Your task to perform on an android device: Search for Italian restaurants on Maps Image 0: 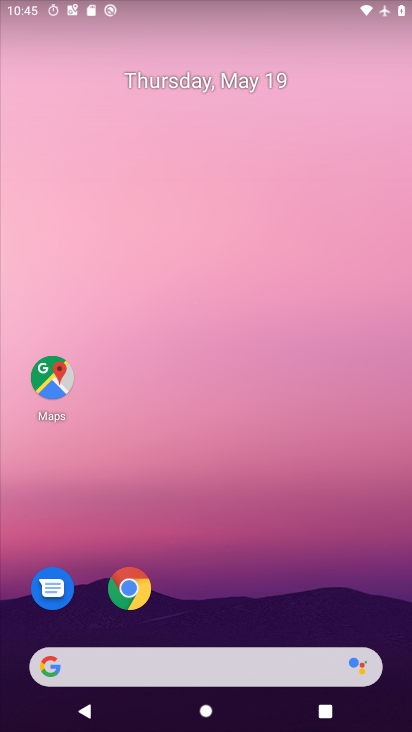
Step 0: press home button
Your task to perform on an android device: Search for Italian restaurants on Maps Image 1: 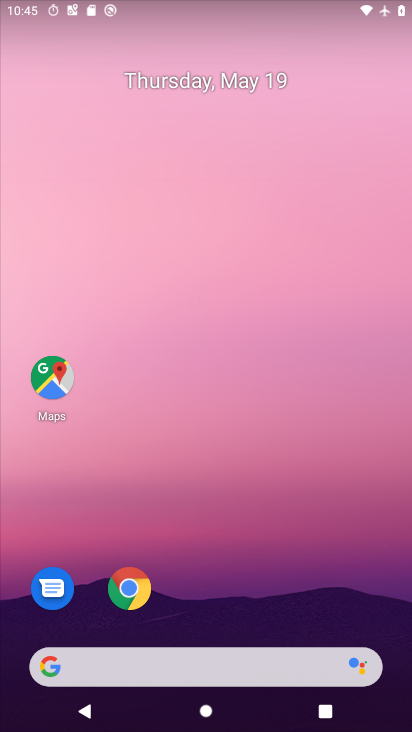
Step 1: click (55, 382)
Your task to perform on an android device: Search for Italian restaurants on Maps Image 2: 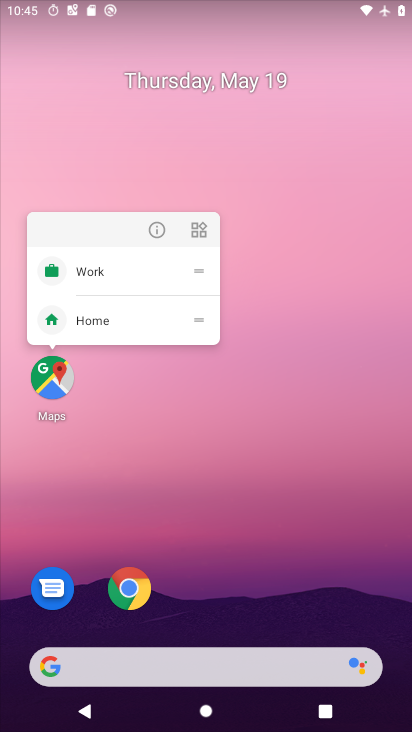
Step 2: click (50, 387)
Your task to perform on an android device: Search for Italian restaurants on Maps Image 3: 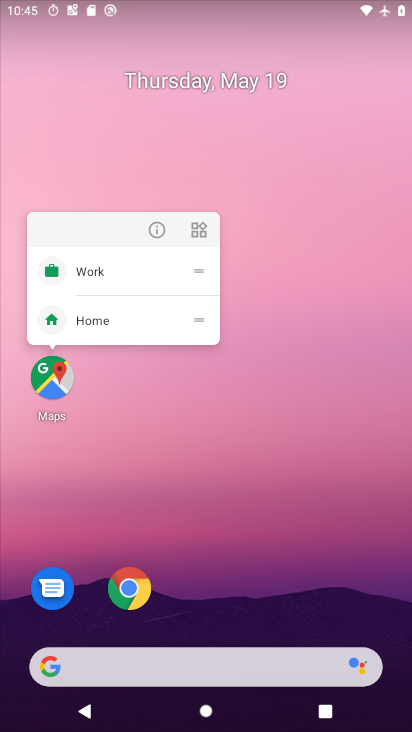
Step 3: click (50, 386)
Your task to perform on an android device: Search for Italian restaurants on Maps Image 4: 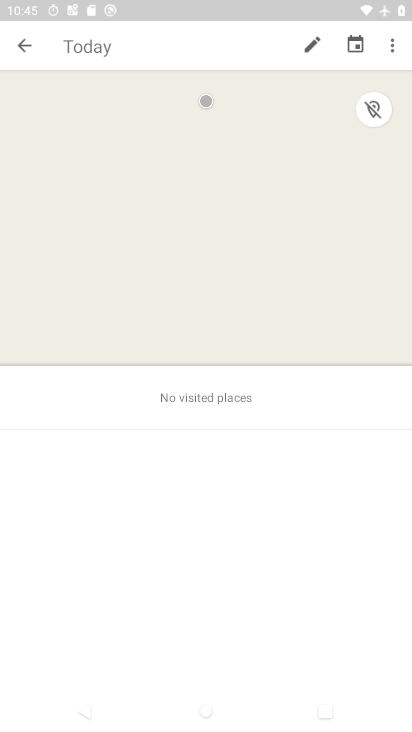
Step 4: click (24, 44)
Your task to perform on an android device: Search for Italian restaurants on Maps Image 5: 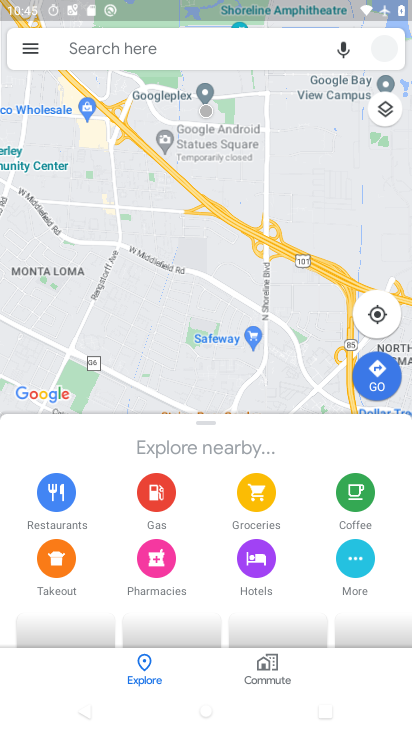
Step 5: click (146, 48)
Your task to perform on an android device: Search for Italian restaurants on Maps Image 6: 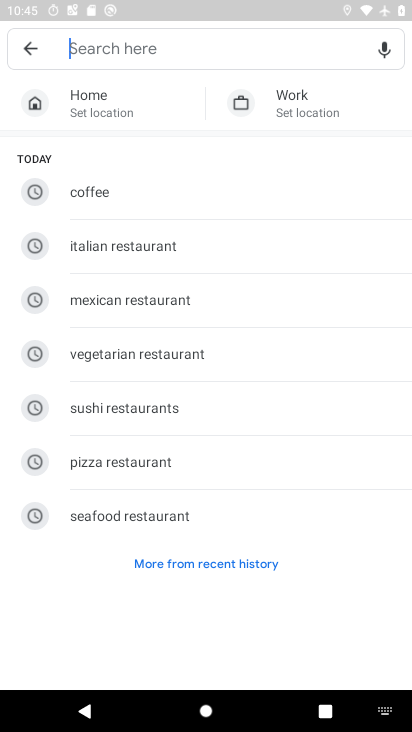
Step 6: click (148, 243)
Your task to perform on an android device: Search for Italian restaurants on Maps Image 7: 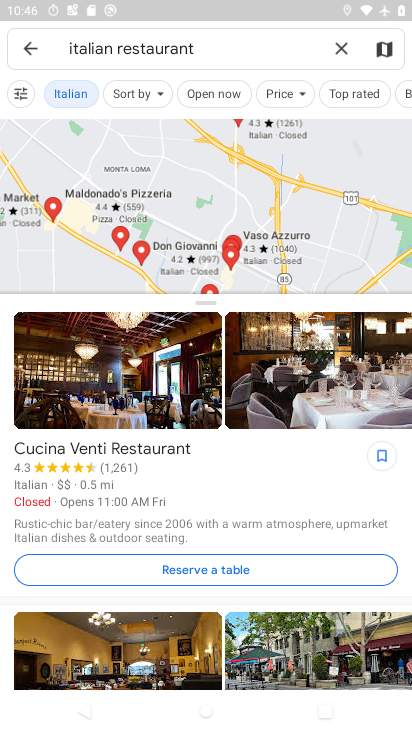
Step 7: task complete